Your task to perform on an android device: Show me the alarms in the clock app Image 0: 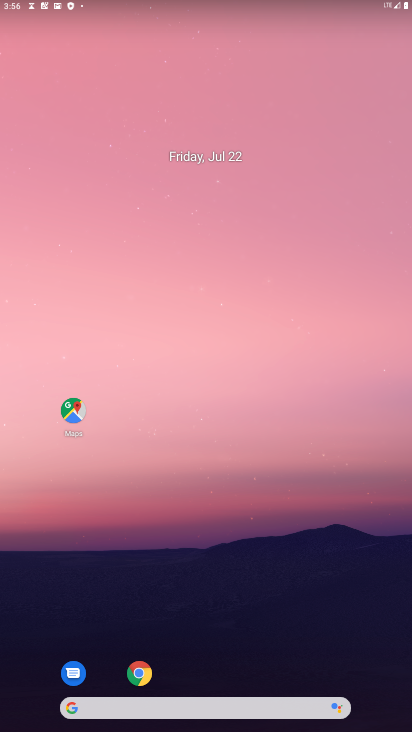
Step 0: drag from (223, 651) to (216, 302)
Your task to perform on an android device: Show me the alarms in the clock app Image 1: 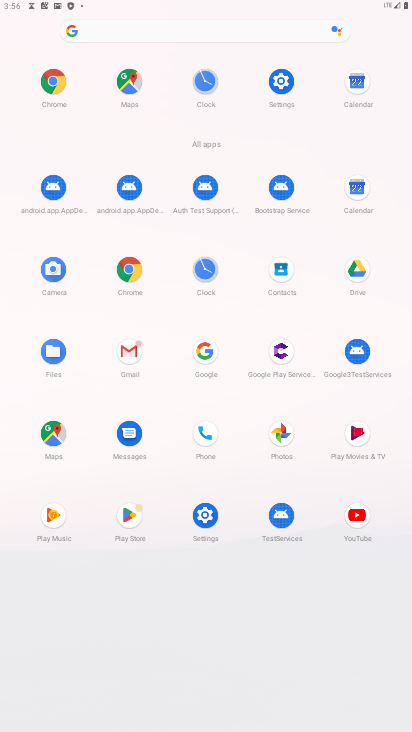
Step 1: click (201, 274)
Your task to perform on an android device: Show me the alarms in the clock app Image 2: 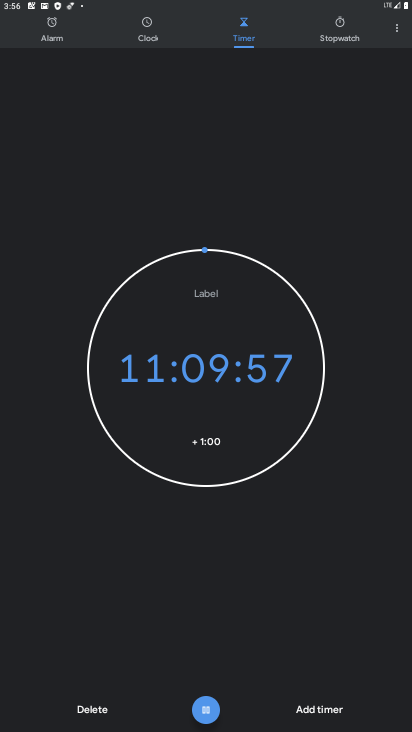
Step 2: click (56, 22)
Your task to perform on an android device: Show me the alarms in the clock app Image 3: 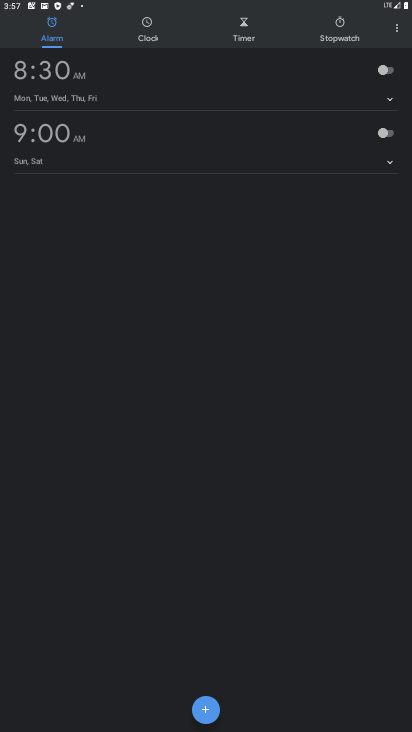
Step 3: task complete